Your task to perform on an android device: Show me recent news Image 0: 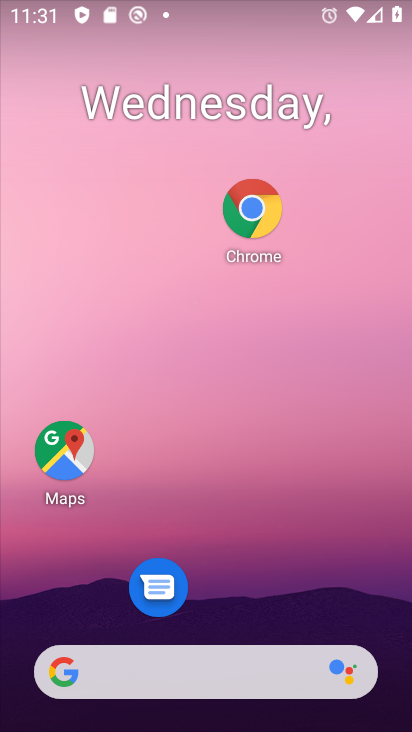
Step 0: drag from (226, 588) to (230, 74)
Your task to perform on an android device: Show me recent news Image 1: 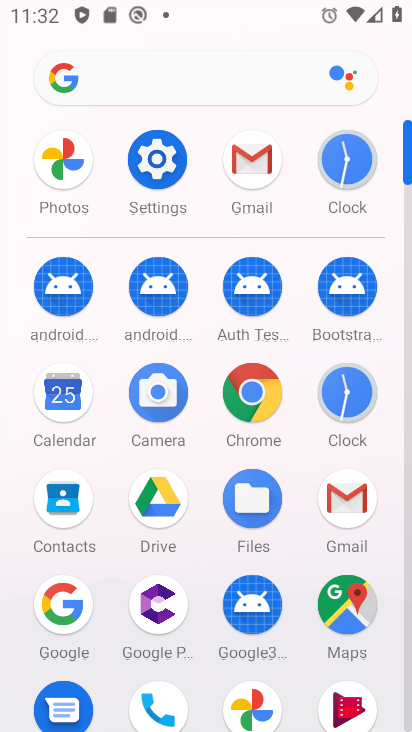
Step 1: click (71, 613)
Your task to perform on an android device: Show me recent news Image 2: 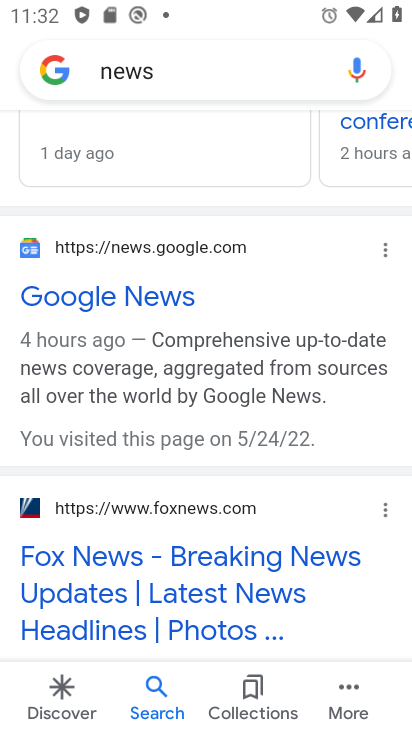
Step 2: click (187, 76)
Your task to perform on an android device: Show me recent news Image 3: 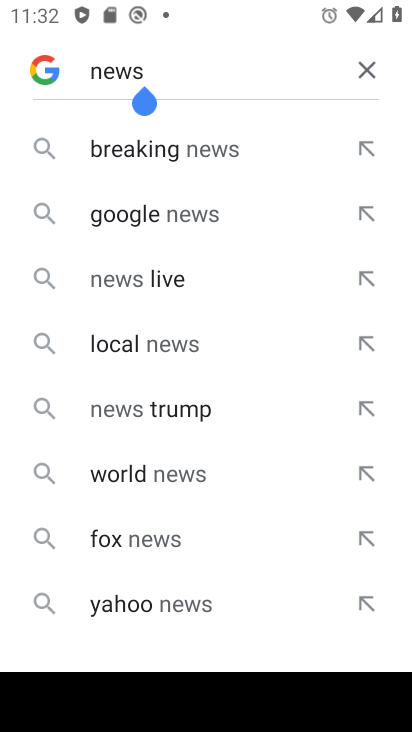
Step 3: click (366, 73)
Your task to perform on an android device: Show me recent news Image 4: 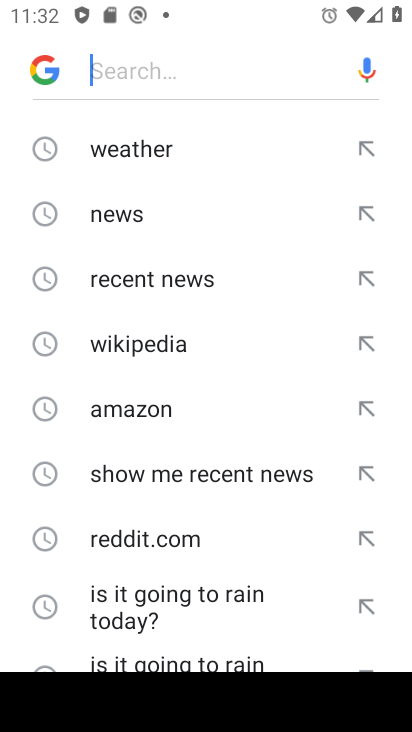
Step 4: click (121, 283)
Your task to perform on an android device: Show me recent news Image 5: 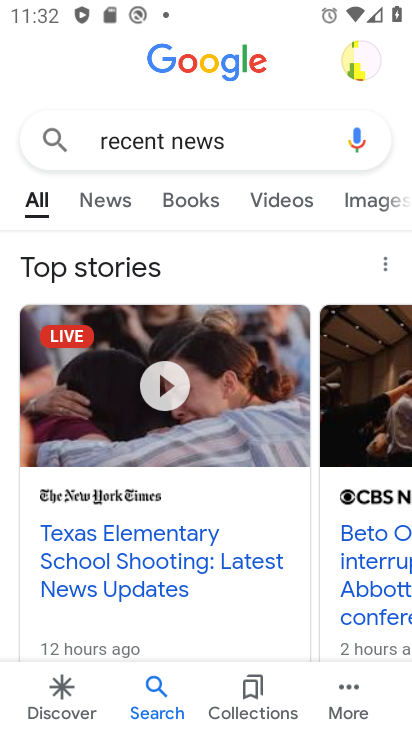
Step 5: task complete